Your task to perform on an android device: Open the Play Movies app and select the watchlist tab. Image 0: 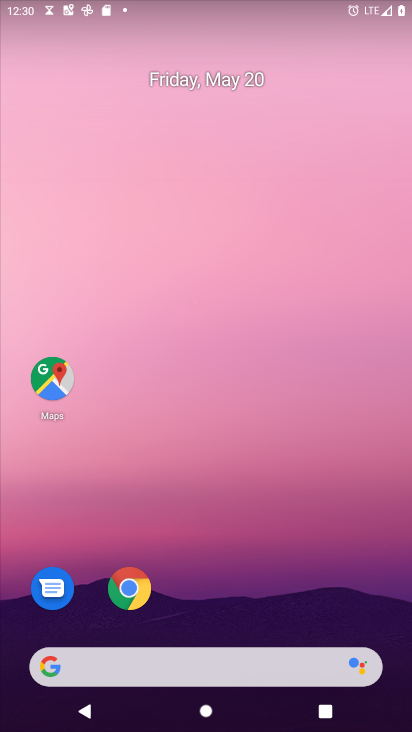
Step 0: drag from (327, 584) to (192, 85)
Your task to perform on an android device: Open the Play Movies app and select the watchlist tab. Image 1: 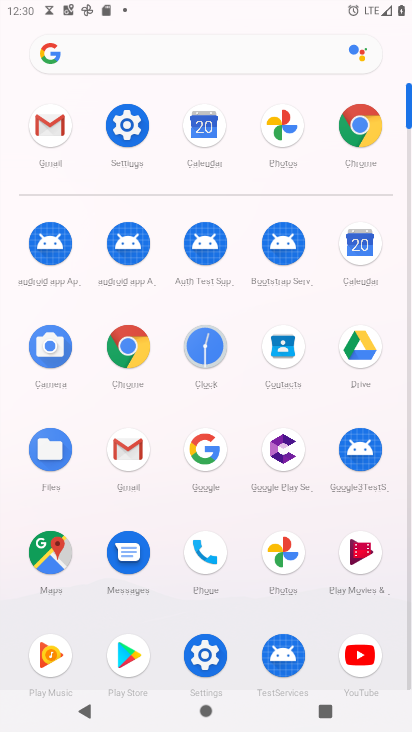
Step 1: click (363, 551)
Your task to perform on an android device: Open the Play Movies app and select the watchlist tab. Image 2: 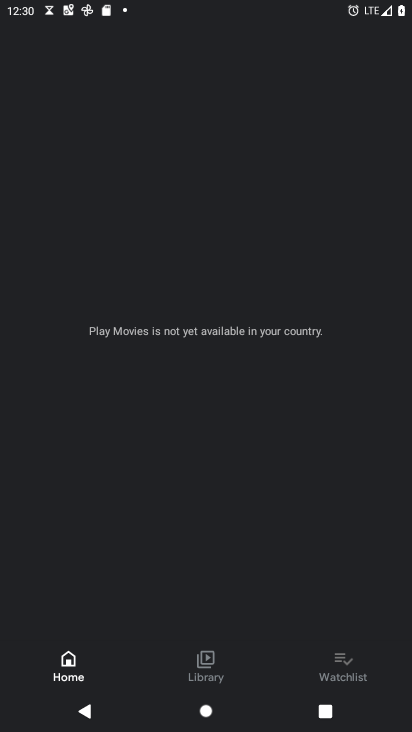
Step 2: click (356, 666)
Your task to perform on an android device: Open the Play Movies app and select the watchlist tab. Image 3: 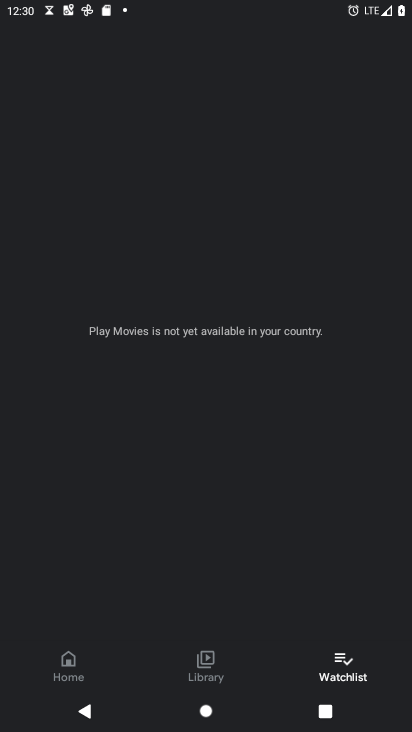
Step 3: task complete